Your task to perform on an android device: Go to wifi settings Image 0: 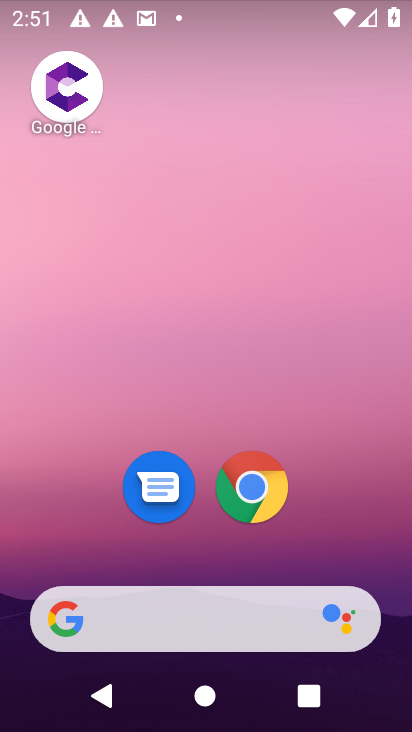
Step 0: drag from (156, 590) to (189, 179)
Your task to perform on an android device: Go to wifi settings Image 1: 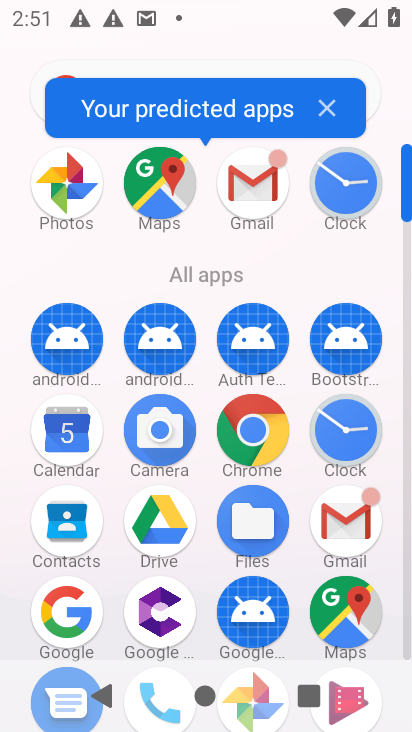
Step 1: drag from (127, 601) to (144, 228)
Your task to perform on an android device: Go to wifi settings Image 2: 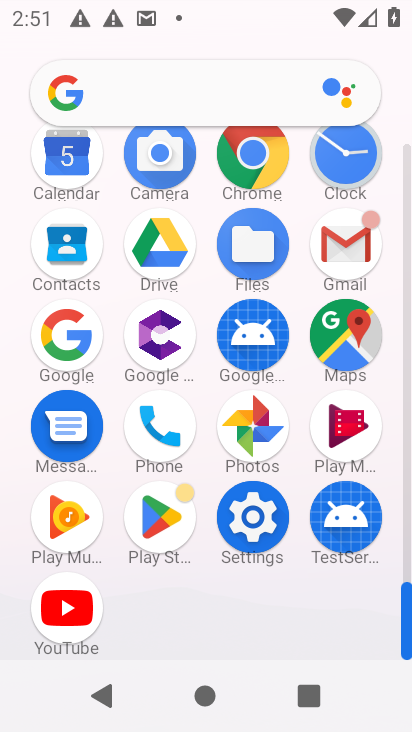
Step 2: click (249, 527)
Your task to perform on an android device: Go to wifi settings Image 3: 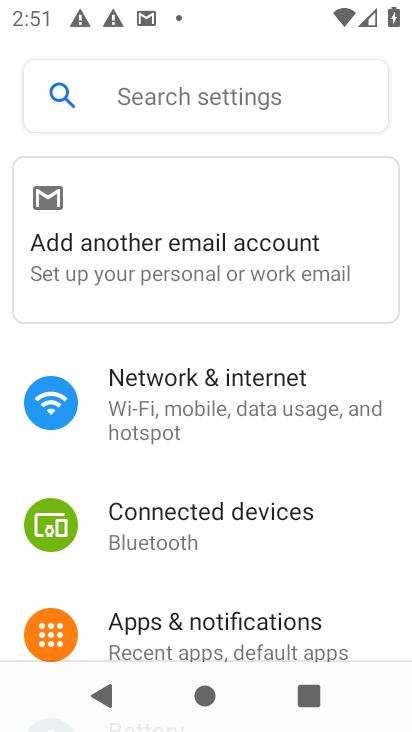
Step 3: click (210, 375)
Your task to perform on an android device: Go to wifi settings Image 4: 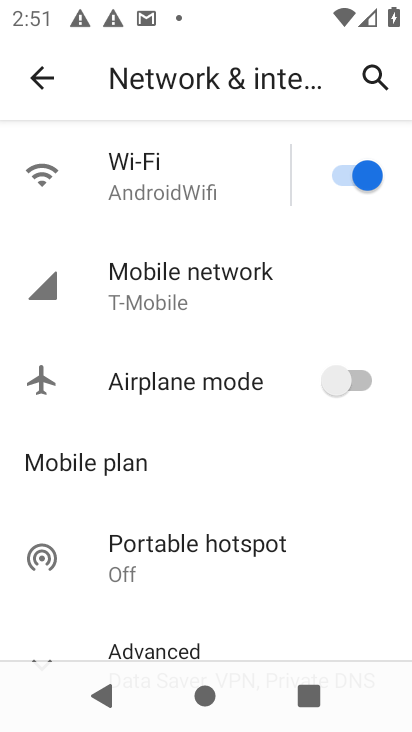
Step 4: click (178, 171)
Your task to perform on an android device: Go to wifi settings Image 5: 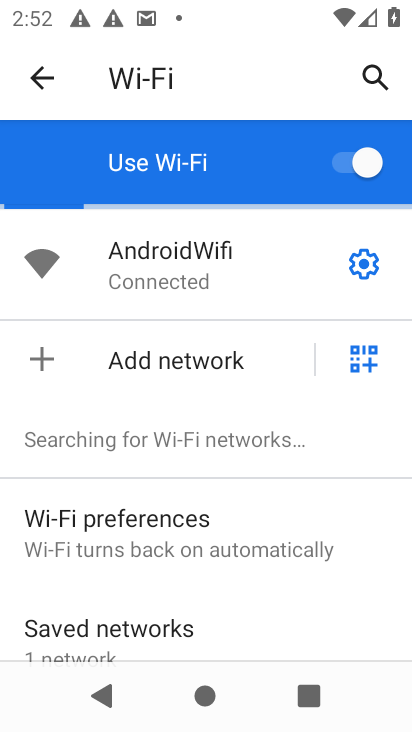
Step 5: task complete